Your task to perform on an android device: Turn on the flashlight Image 0: 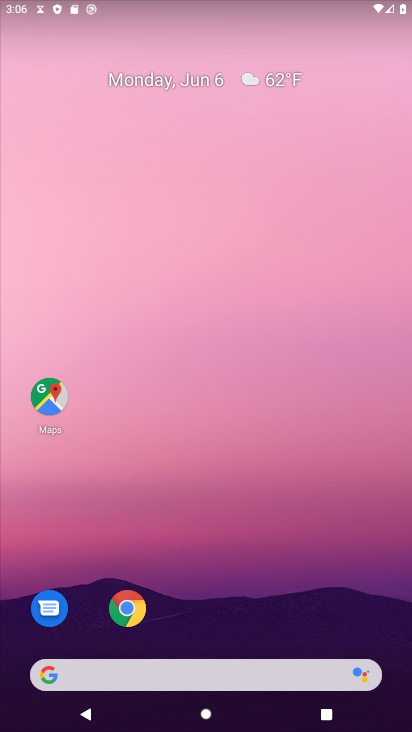
Step 0: drag from (238, 449) to (236, 13)
Your task to perform on an android device: Turn on the flashlight Image 1: 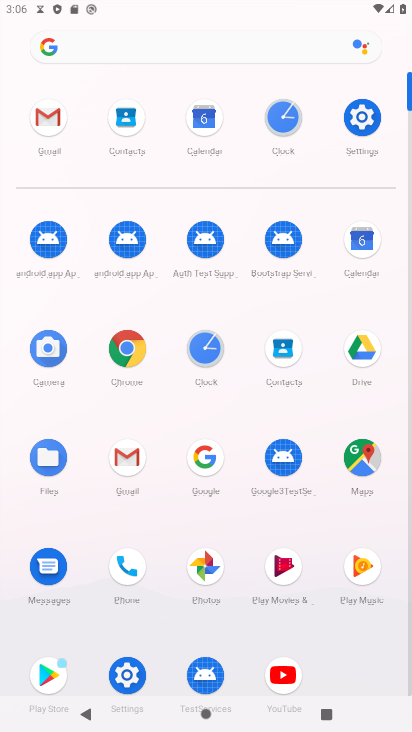
Step 1: click (363, 121)
Your task to perform on an android device: Turn on the flashlight Image 2: 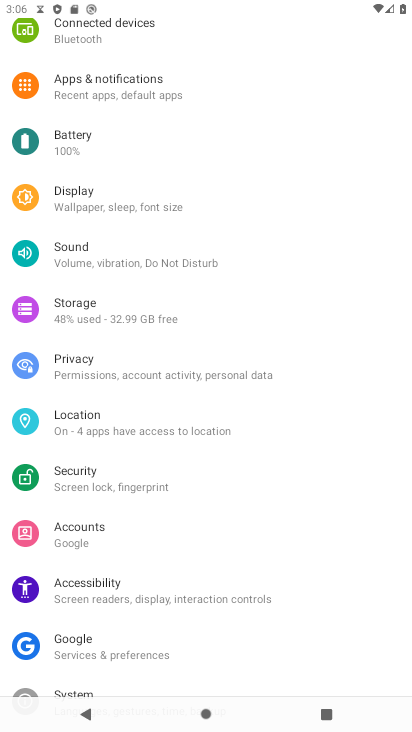
Step 2: task complete